Your task to perform on an android device: turn smart compose on in the gmail app Image 0: 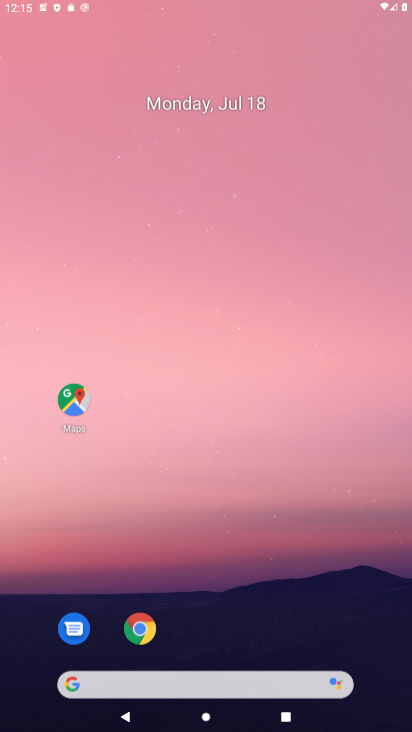
Step 0: press home button
Your task to perform on an android device: turn smart compose on in the gmail app Image 1: 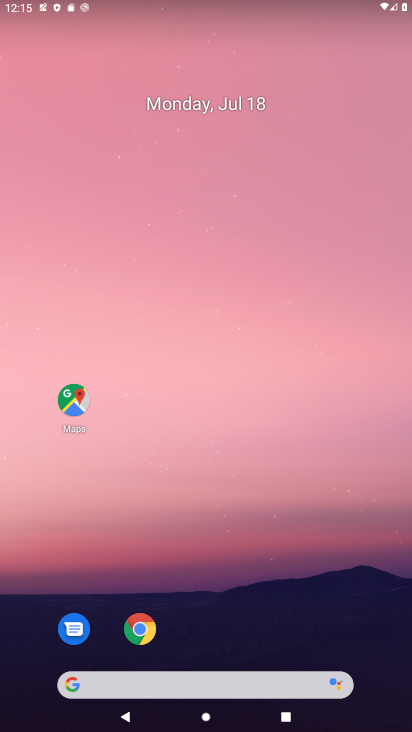
Step 1: drag from (227, 652) to (247, 27)
Your task to perform on an android device: turn smart compose on in the gmail app Image 2: 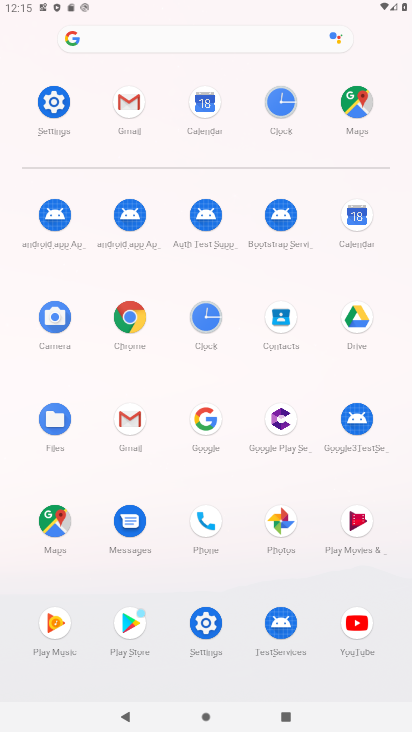
Step 2: click (127, 410)
Your task to perform on an android device: turn smart compose on in the gmail app Image 3: 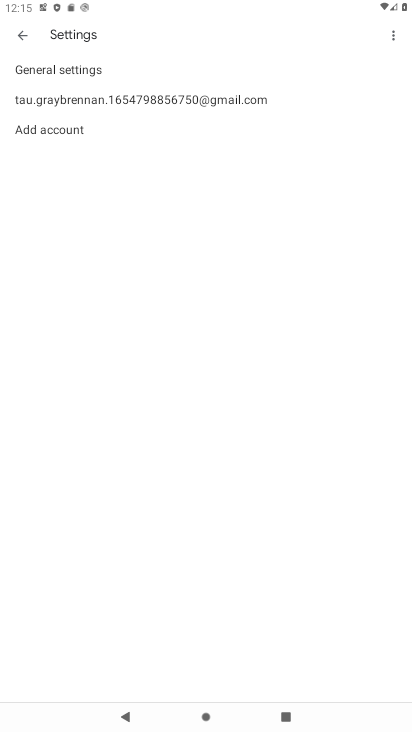
Step 3: click (114, 98)
Your task to perform on an android device: turn smart compose on in the gmail app Image 4: 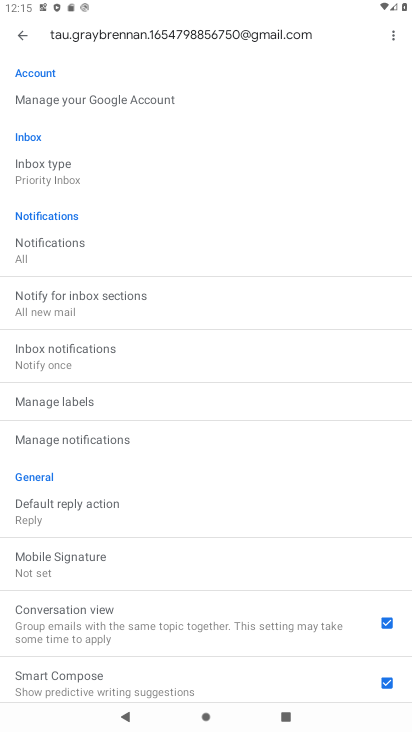
Step 4: task complete